Your task to perform on an android device: View the shopping cart on newegg. Search for dell xps on newegg, select the first entry, and add it to the cart. Image 0: 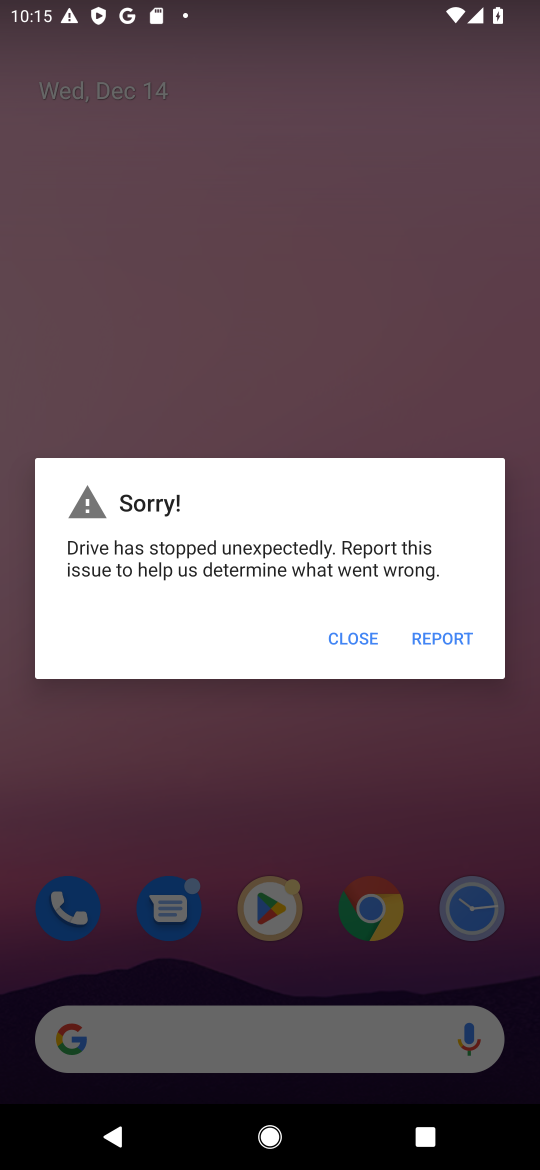
Step 0: click (384, 640)
Your task to perform on an android device: View the shopping cart on newegg. Search for dell xps on newegg, select the first entry, and add it to the cart. Image 1: 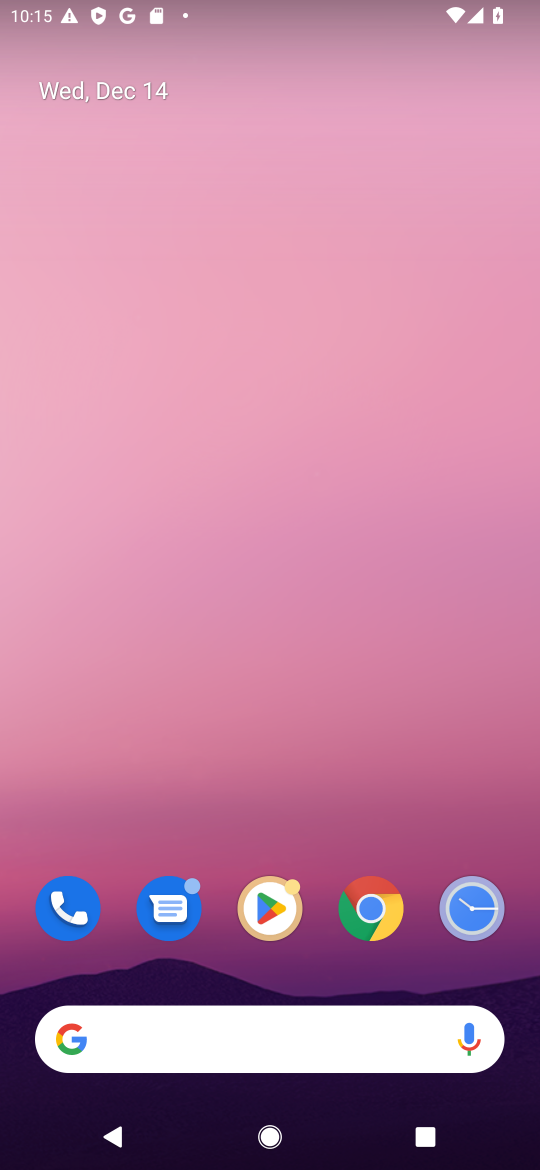
Step 1: click (255, 1048)
Your task to perform on an android device: View the shopping cart on newegg. Search for dell xps on newegg, select the first entry, and add it to the cart. Image 2: 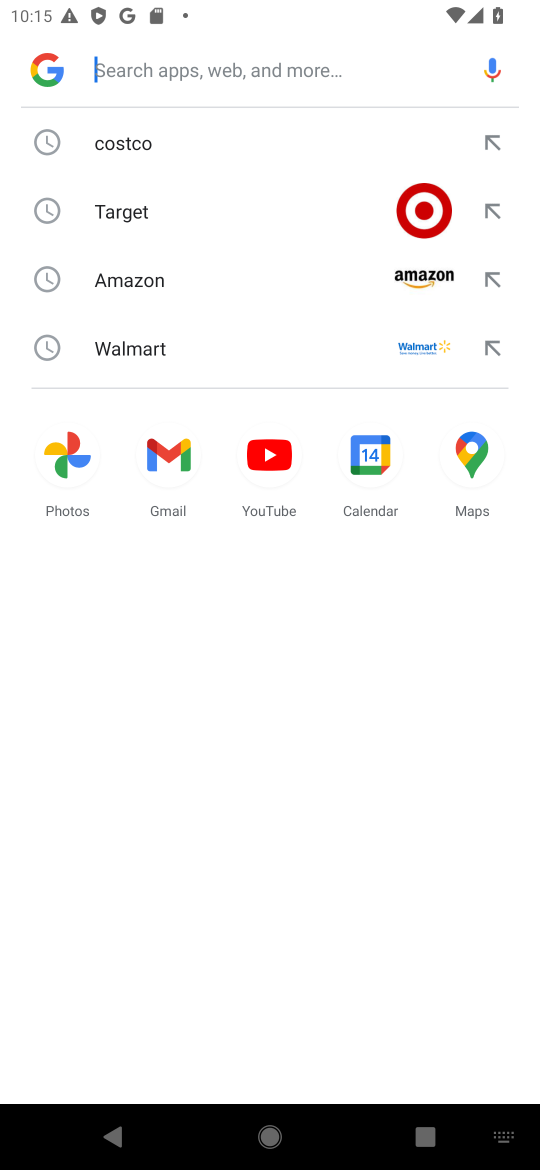
Step 2: type "newgg"
Your task to perform on an android device: View the shopping cart on newegg. Search for dell xps on newegg, select the first entry, and add it to the cart. Image 3: 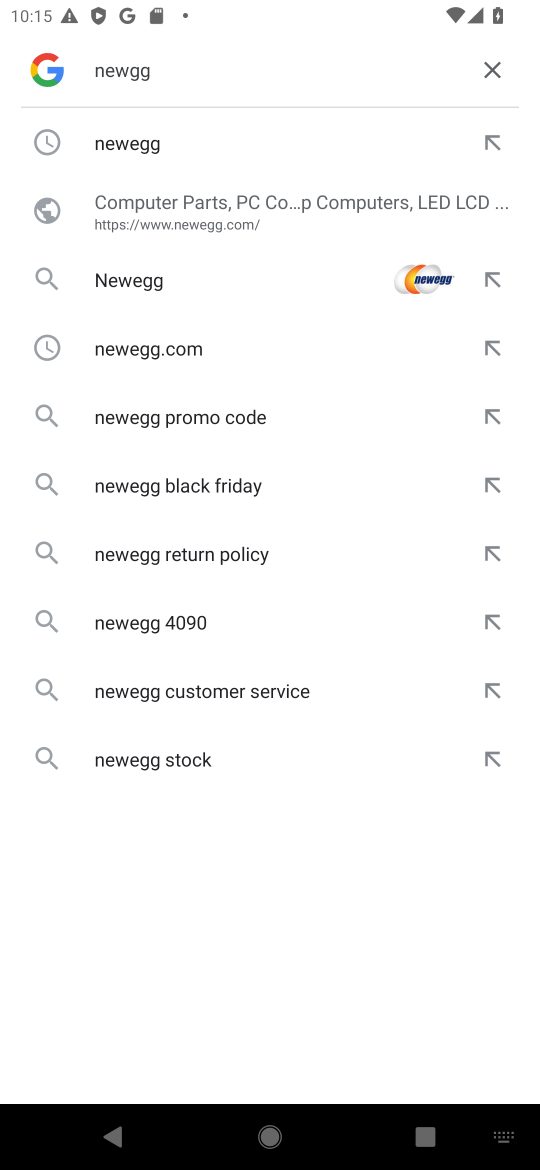
Step 3: click (172, 156)
Your task to perform on an android device: View the shopping cart on newegg. Search for dell xps on newegg, select the first entry, and add it to the cart. Image 4: 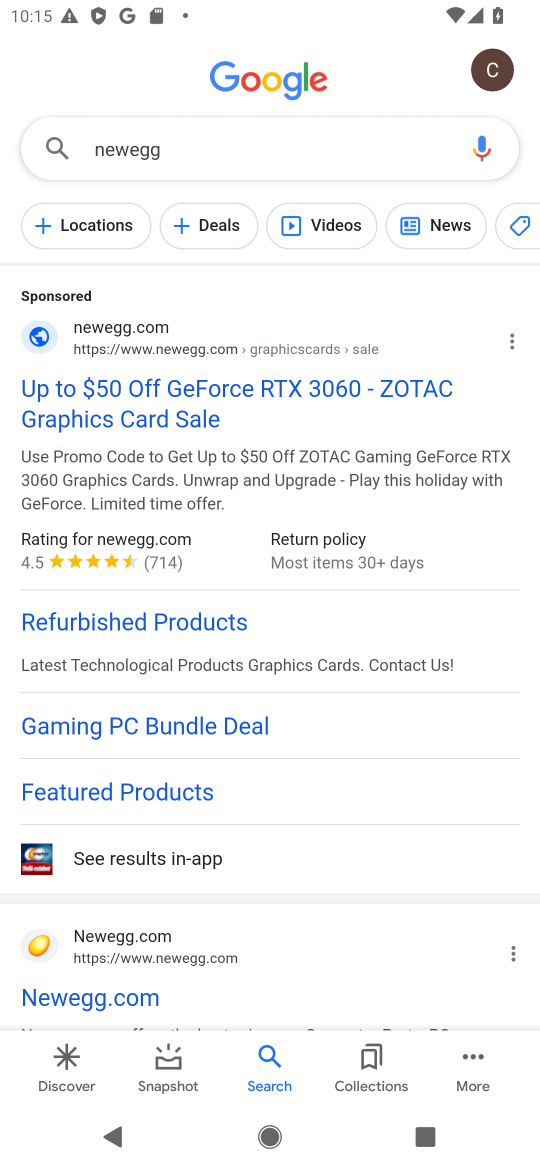
Step 4: click (150, 382)
Your task to perform on an android device: View the shopping cart on newegg. Search for dell xps on newegg, select the first entry, and add it to the cart. Image 5: 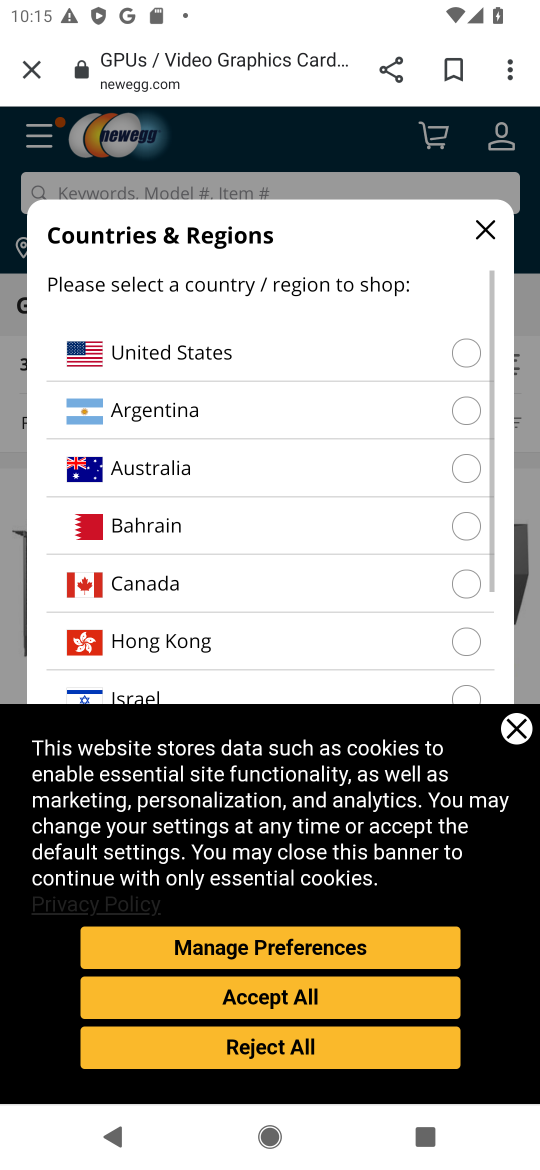
Step 5: click (150, 353)
Your task to perform on an android device: View the shopping cart on newegg. Search for dell xps on newegg, select the first entry, and add it to the cart. Image 6: 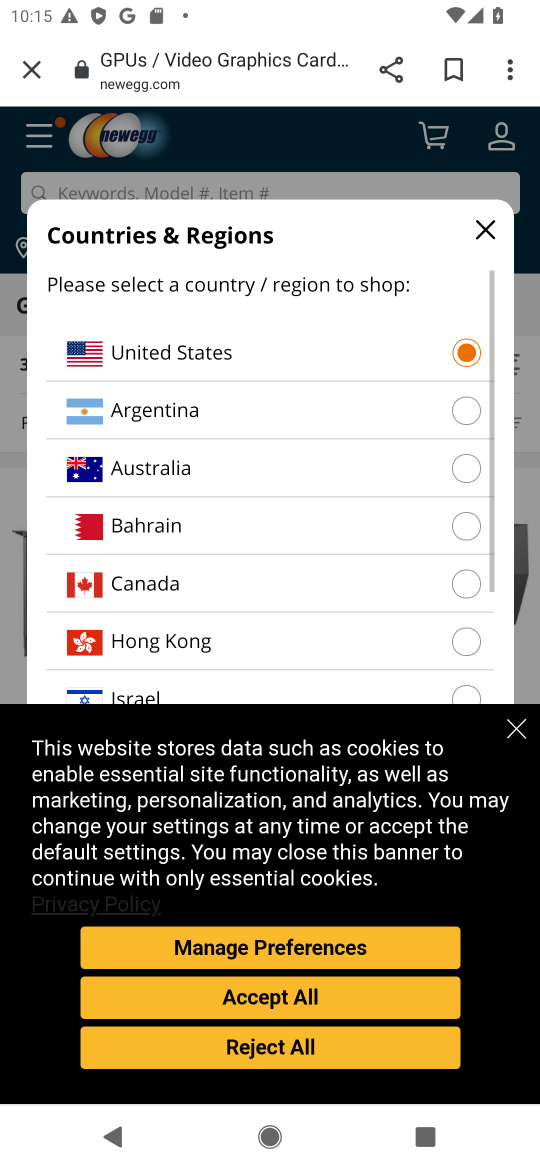
Step 6: click (296, 1004)
Your task to perform on an android device: View the shopping cart on newegg. Search for dell xps on newegg, select the first entry, and add it to the cart. Image 7: 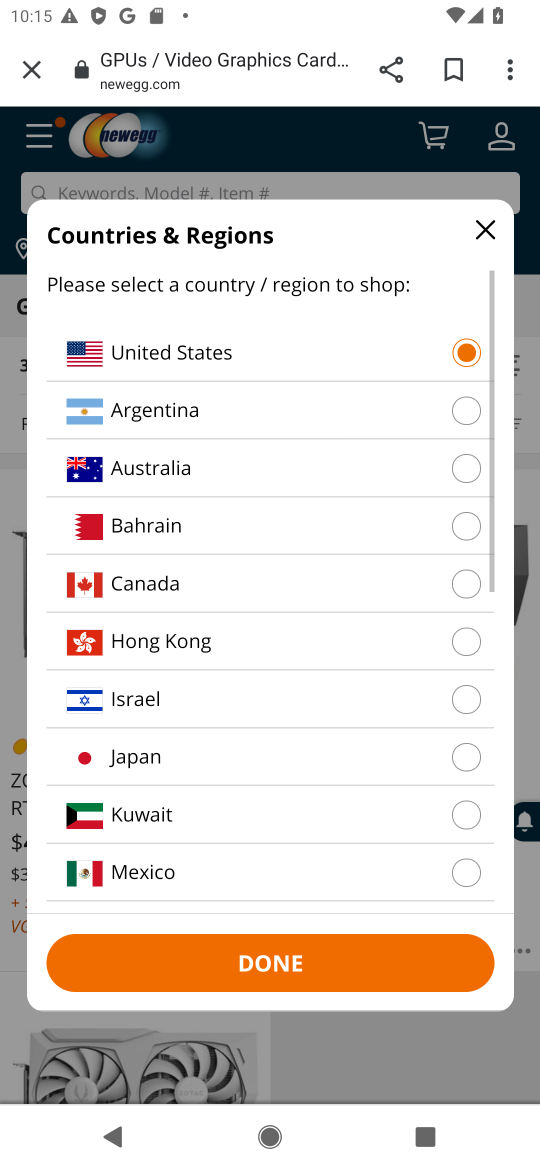
Step 7: click (209, 991)
Your task to perform on an android device: View the shopping cart on newegg. Search for dell xps on newegg, select the first entry, and add it to the cart. Image 8: 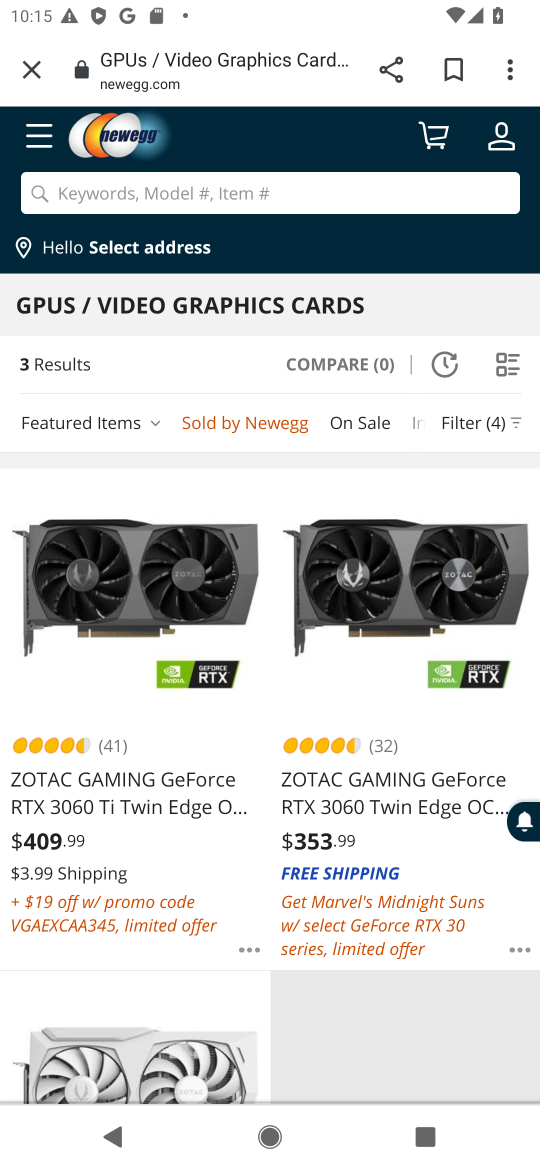
Step 8: click (127, 775)
Your task to perform on an android device: View the shopping cart on newegg. Search for dell xps on newegg, select the first entry, and add it to the cart. Image 9: 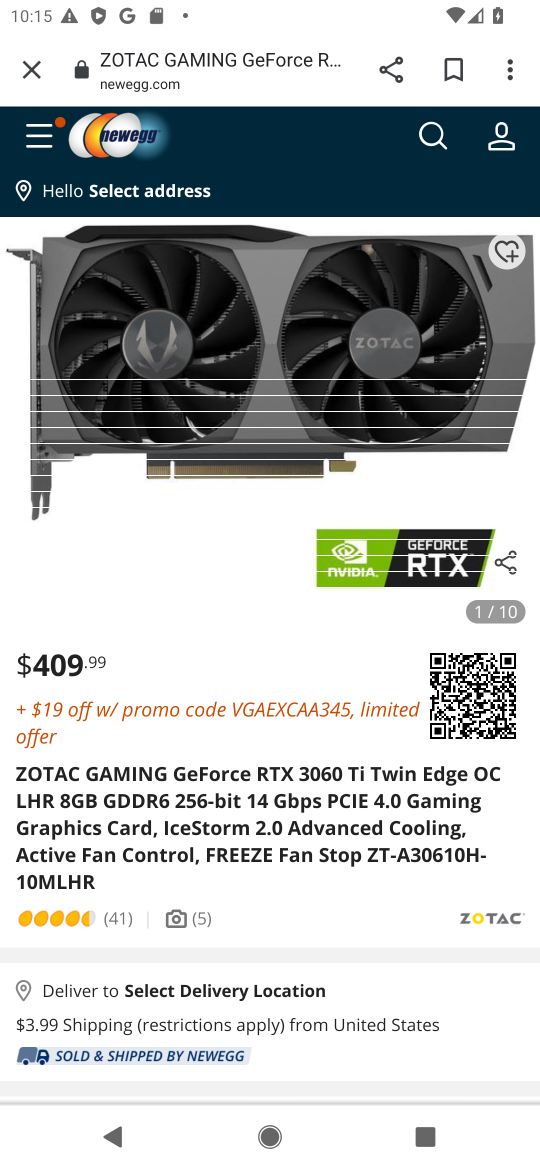
Step 9: click (228, 1075)
Your task to perform on an android device: View the shopping cart on newegg. Search for dell xps on newegg, select the first entry, and add it to the cart. Image 10: 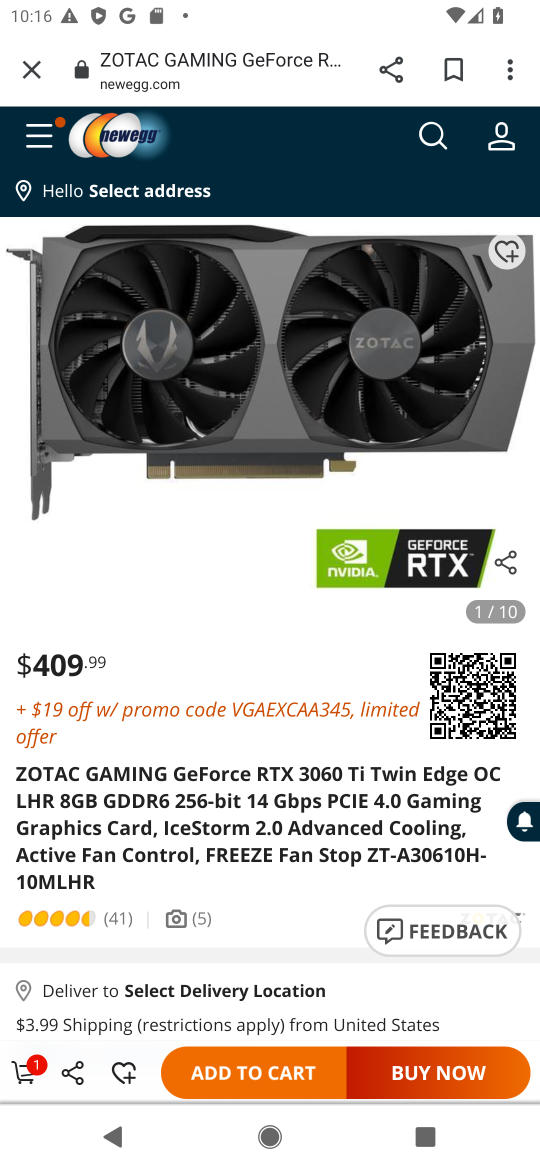
Step 10: task complete